Your task to perform on an android device: Show me productivity apps on the Play Store Image 0: 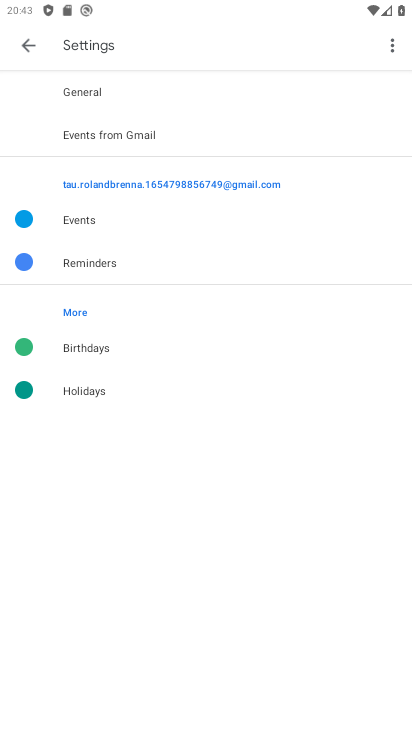
Step 0: press home button
Your task to perform on an android device: Show me productivity apps on the Play Store Image 1: 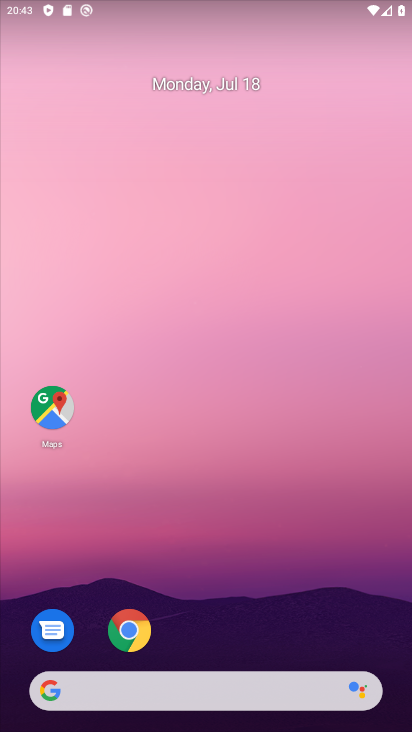
Step 1: drag from (236, 643) to (235, 244)
Your task to perform on an android device: Show me productivity apps on the Play Store Image 2: 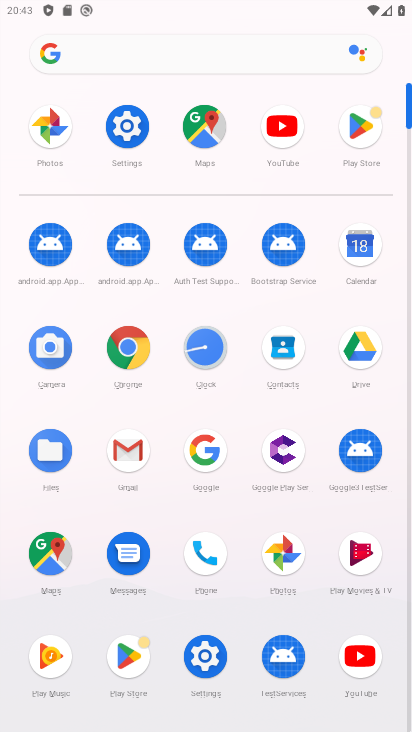
Step 2: click (122, 660)
Your task to perform on an android device: Show me productivity apps on the Play Store Image 3: 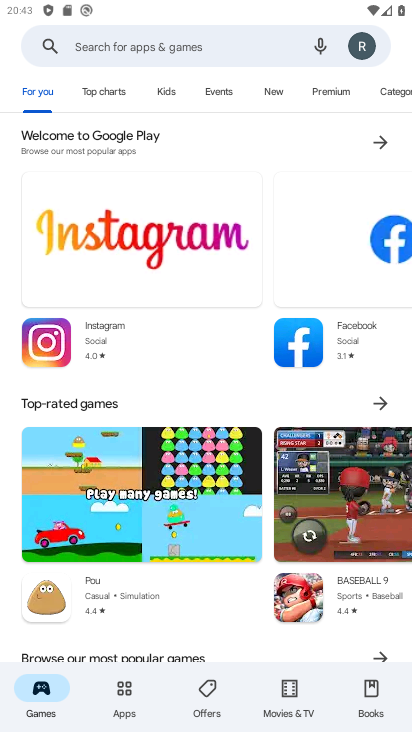
Step 3: click (131, 694)
Your task to perform on an android device: Show me productivity apps on the Play Store Image 4: 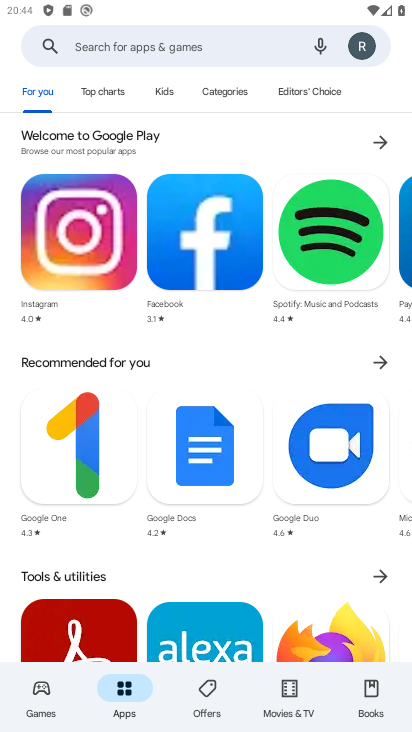
Step 4: task complete